Your task to perform on an android device: check the backup settings in the google photos Image 0: 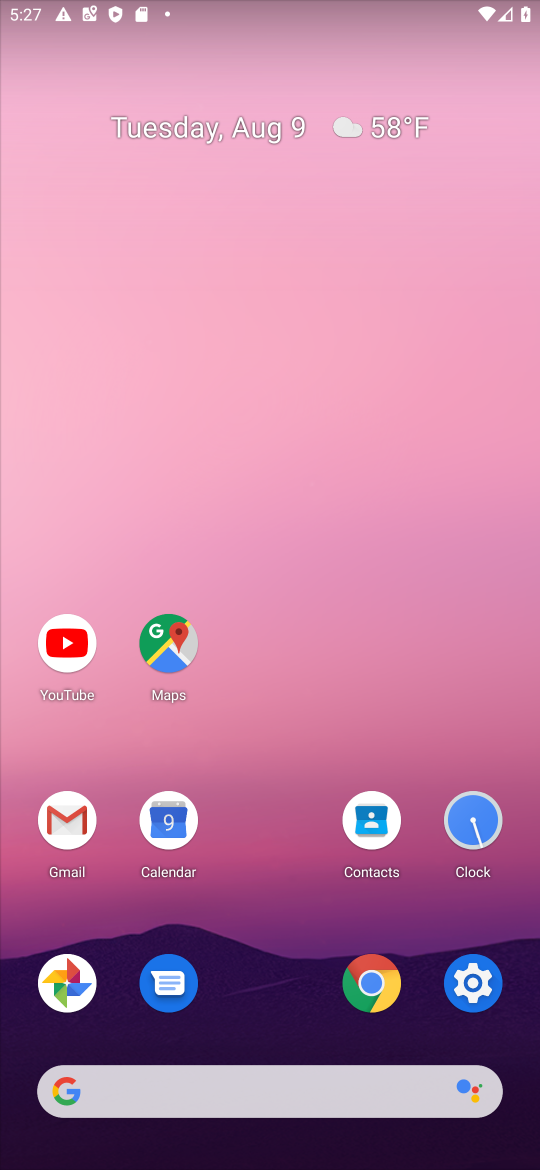
Step 0: click (68, 981)
Your task to perform on an android device: check the backup settings in the google photos Image 1: 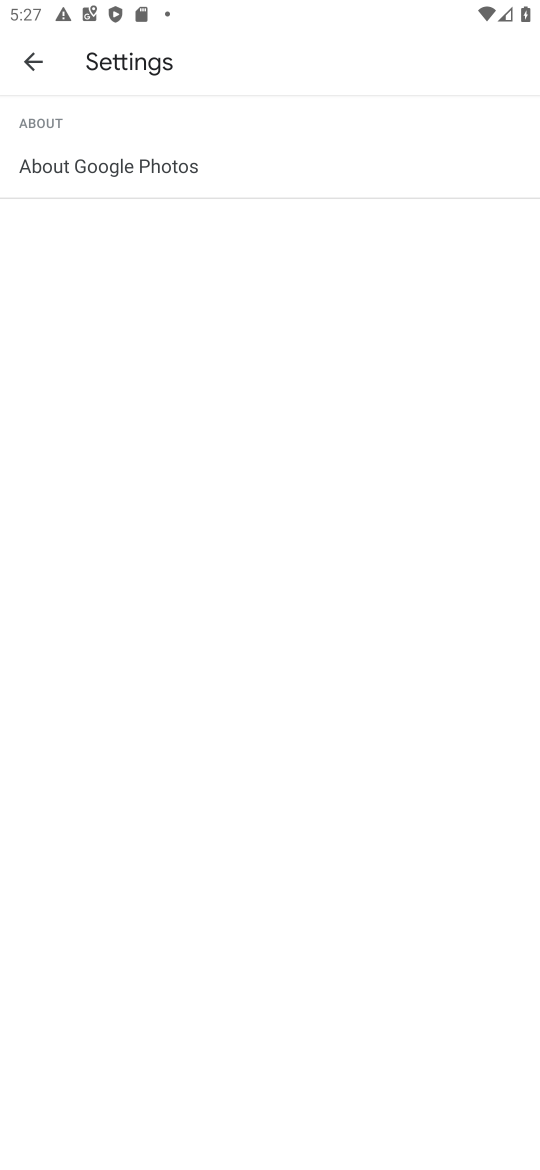
Step 1: click (32, 53)
Your task to perform on an android device: check the backup settings in the google photos Image 2: 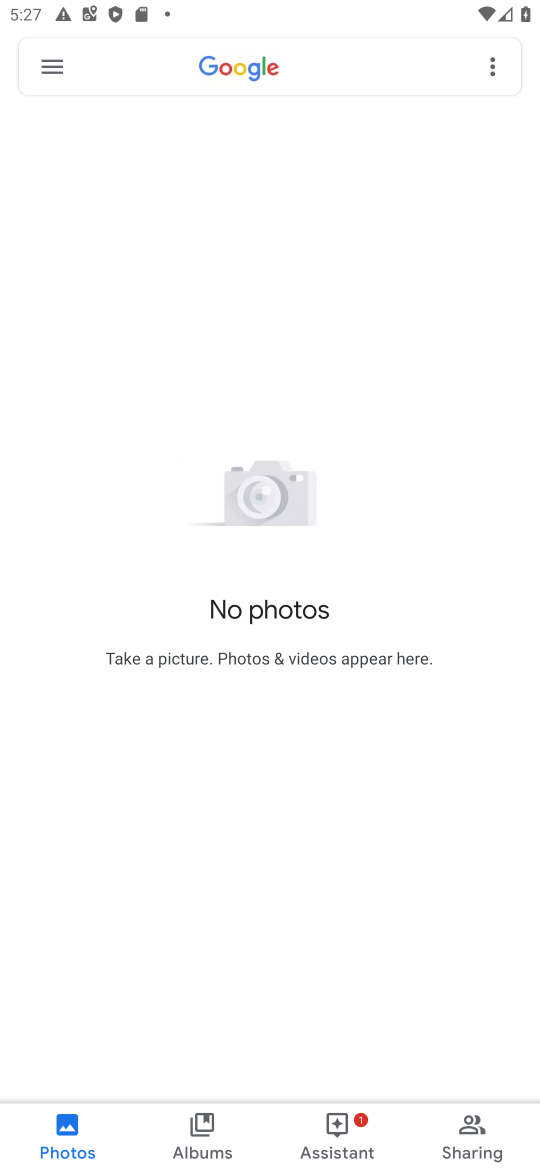
Step 2: click (49, 56)
Your task to perform on an android device: check the backup settings in the google photos Image 3: 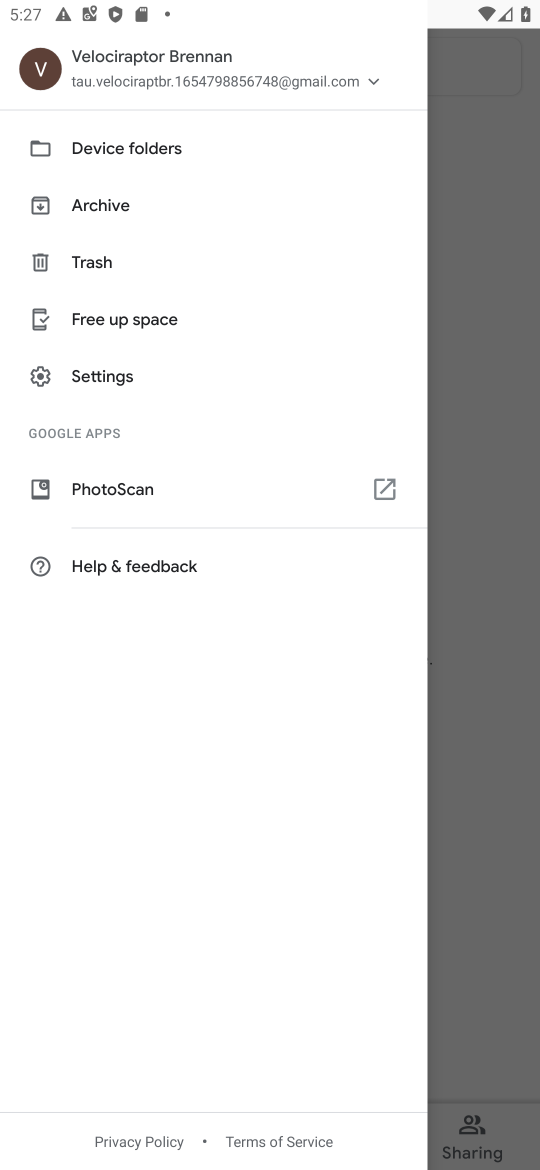
Step 3: click (103, 369)
Your task to perform on an android device: check the backup settings in the google photos Image 4: 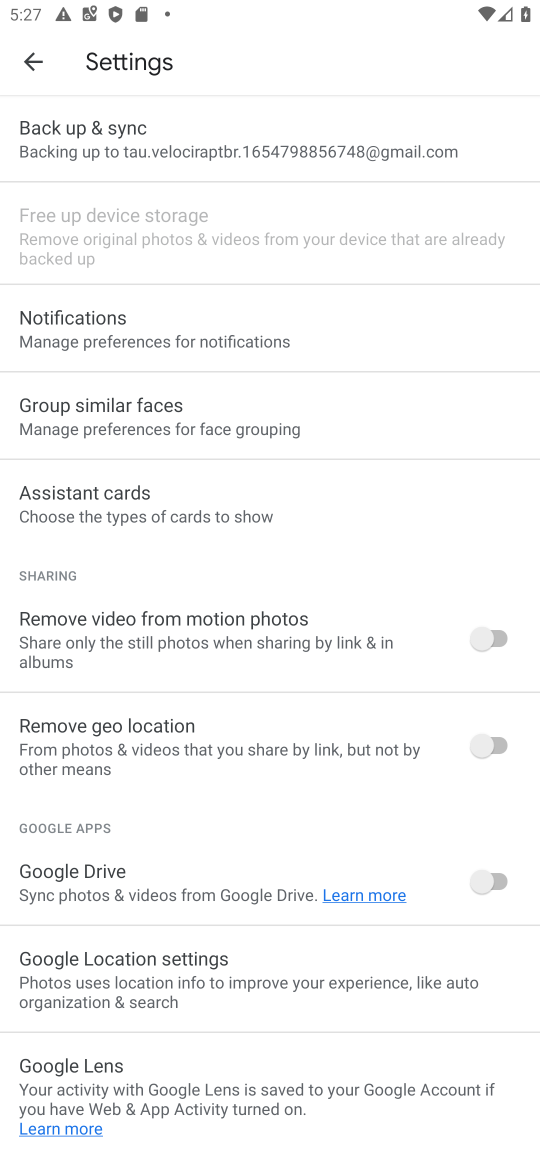
Step 4: click (88, 133)
Your task to perform on an android device: check the backup settings in the google photos Image 5: 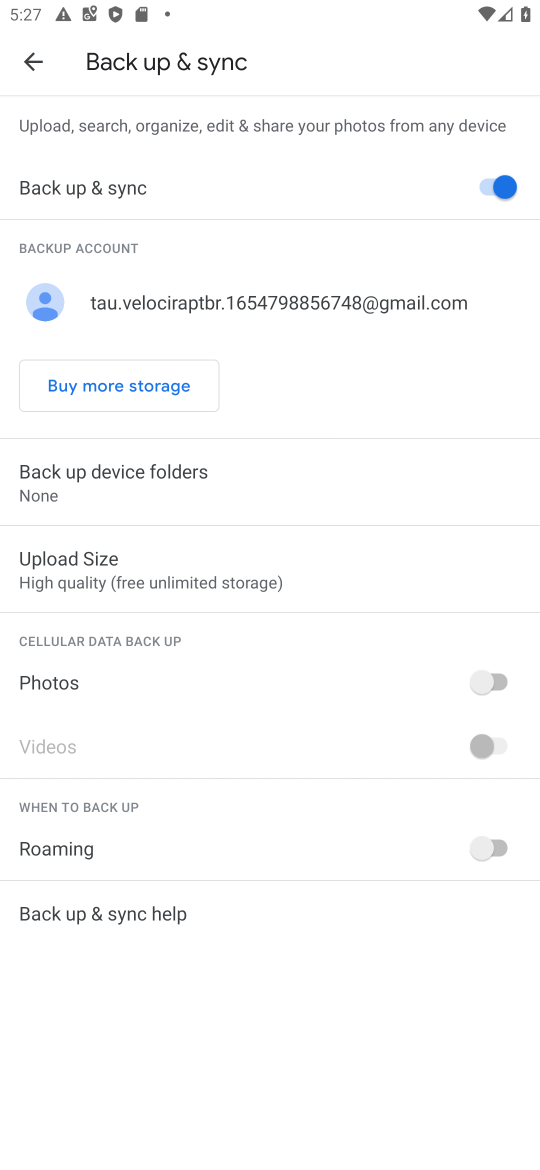
Step 5: task complete